Your task to perform on an android device: open app "Adobe Acrobat Reader" Image 0: 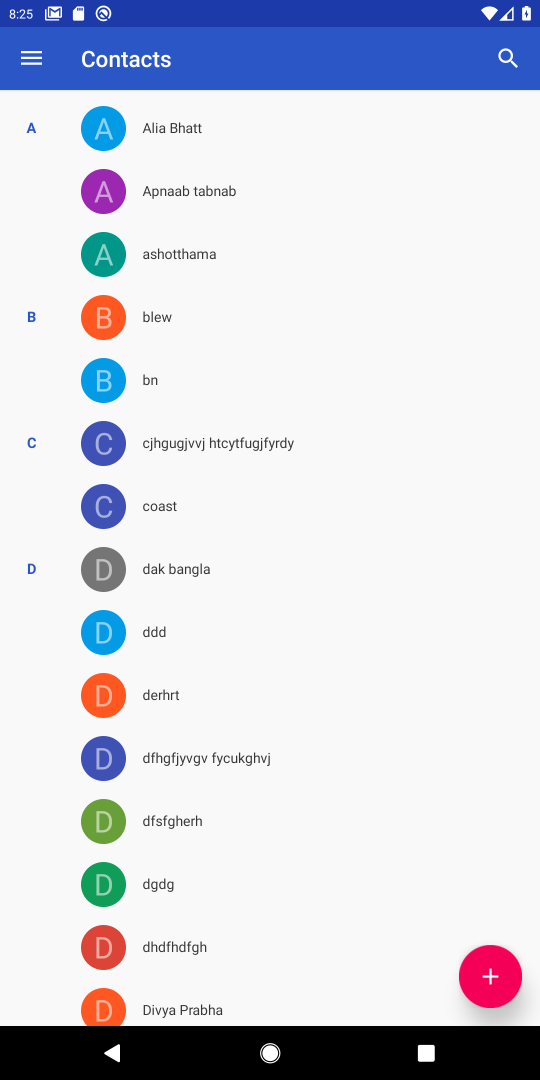
Step 0: task complete